Your task to perform on an android device: What's the weather? Image 0: 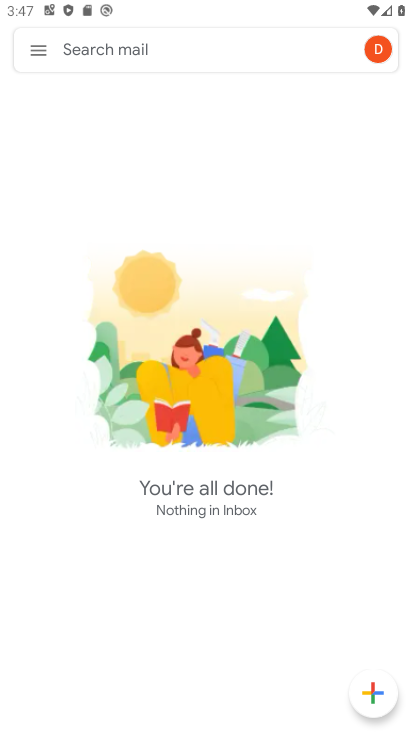
Step 0: press home button
Your task to perform on an android device: What's the weather? Image 1: 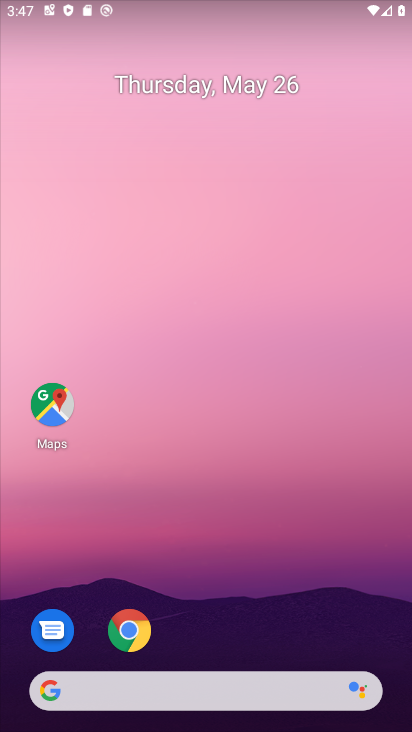
Step 1: drag from (233, 636) to (186, 175)
Your task to perform on an android device: What's the weather? Image 2: 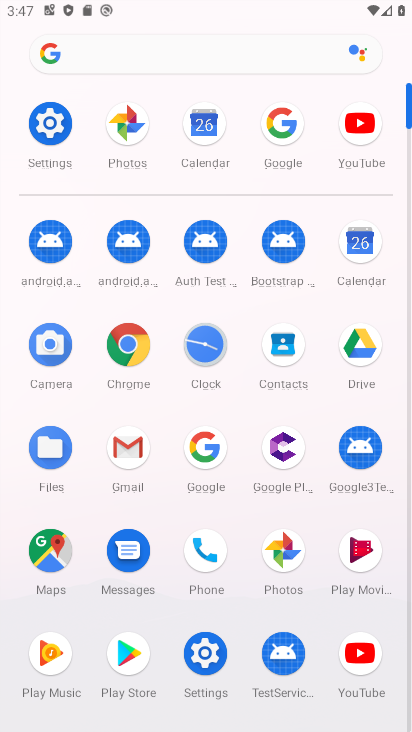
Step 2: click (278, 120)
Your task to perform on an android device: What's the weather? Image 3: 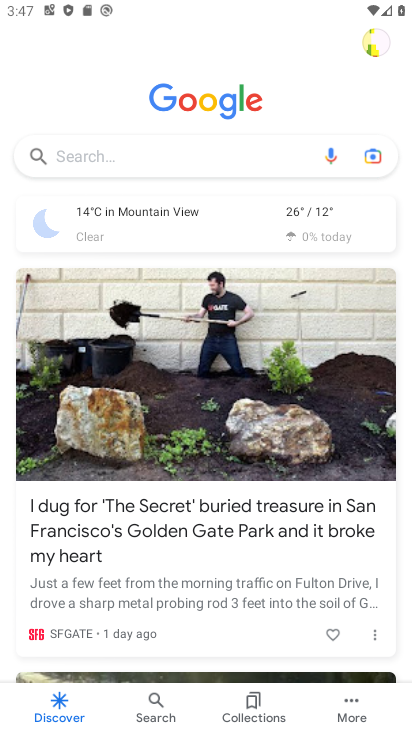
Step 3: click (172, 219)
Your task to perform on an android device: What's the weather? Image 4: 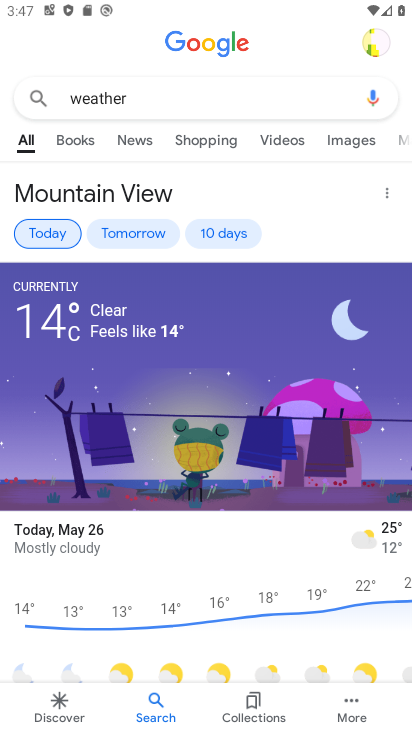
Step 4: task complete